Your task to perform on an android device: find snoozed emails in the gmail app Image 0: 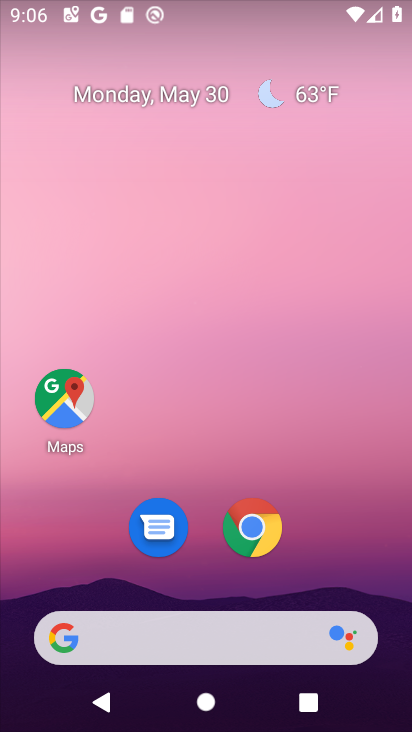
Step 0: drag from (331, 510) to (359, 185)
Your task to perform on an android device: find snoozed emails in the gmail app Image 1: 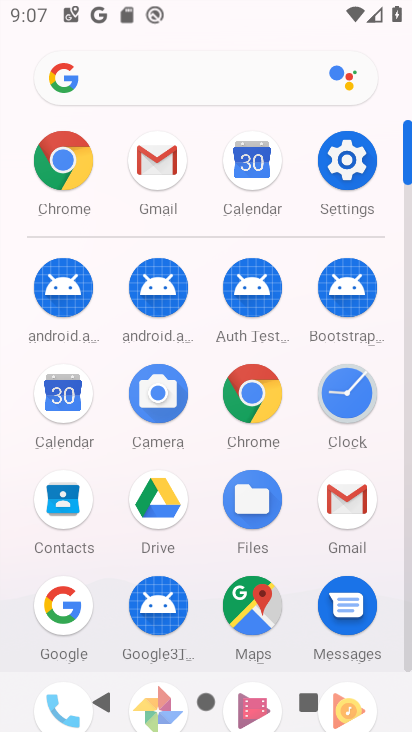
Step 1: click (357, 476)
Your task to perform on an android device: find snoozed emails in the gmail app Image 2: 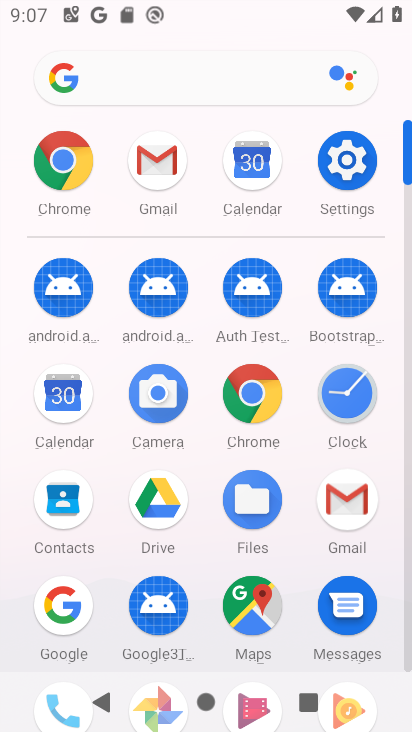
Step 2: click (353, 502)
Your task to perform on an android device: find snoozed emails in the gmail app Image 3: 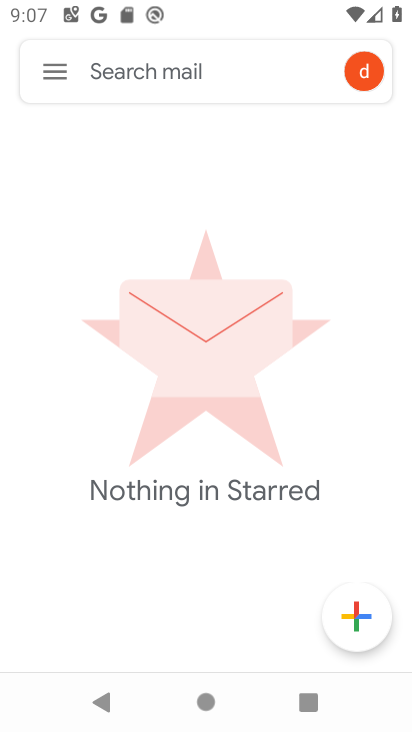
Step 3: click (58, 68)
Your task to perform on an android device: find snoozed emails in the gmail app Image 4: 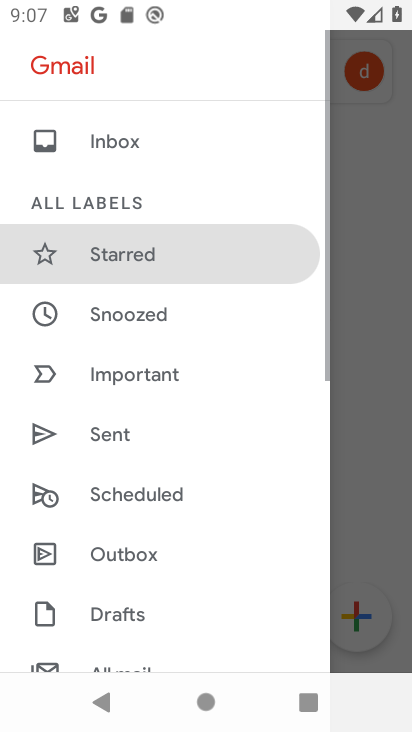
Step 4: click (146, 308)
Your task to perform on an android device: find snoozed emails in the gmail app Image 5: 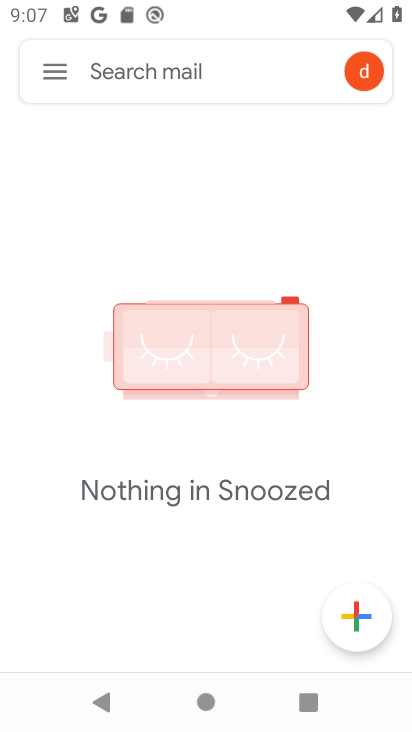
Step 5: task complete